Your task to perform on an android device: What's the news about the US economy? Image 0: 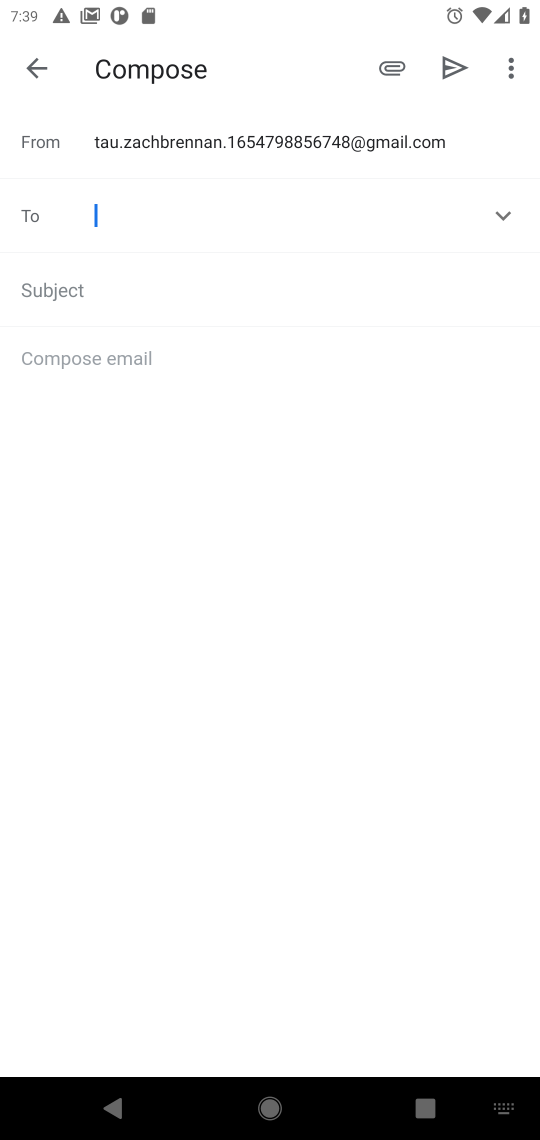
Step 0: press home button
Your task to perform on an android device: What's the news about the US economy? Image 1: 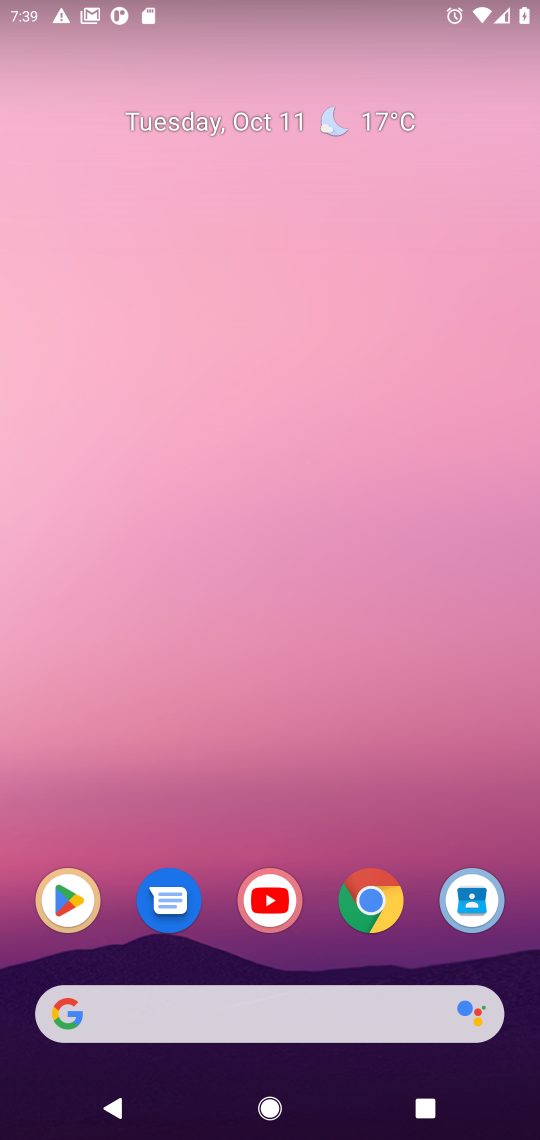
Step 1: click (375, 895)
Your task to perform on an android device: What's the news about the US economy? Image 2: 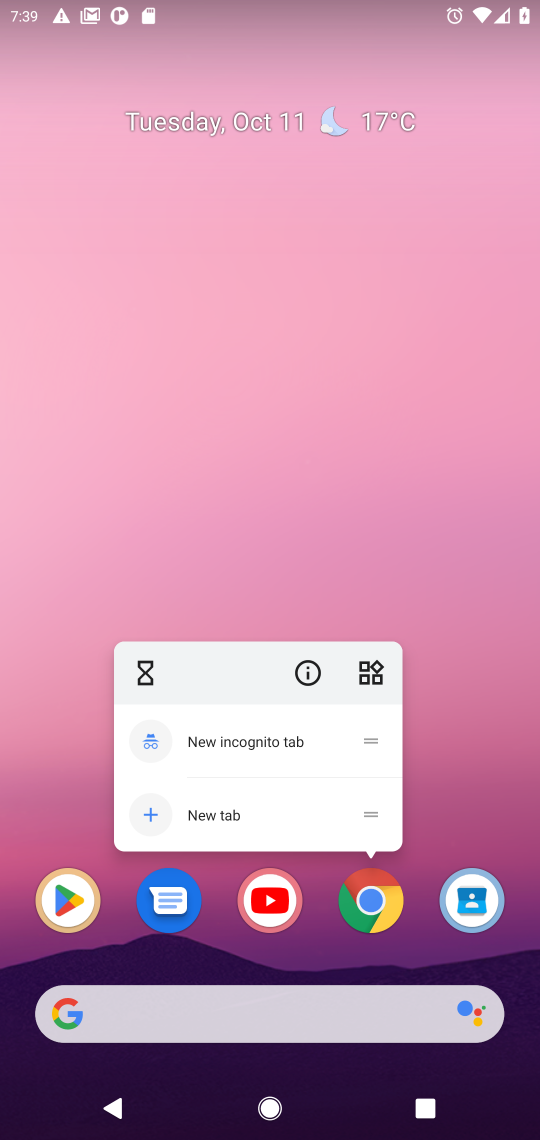
Step 2: click (376, 898)
Your task to perform on an android device: What's the news about the US economy? Image 3: 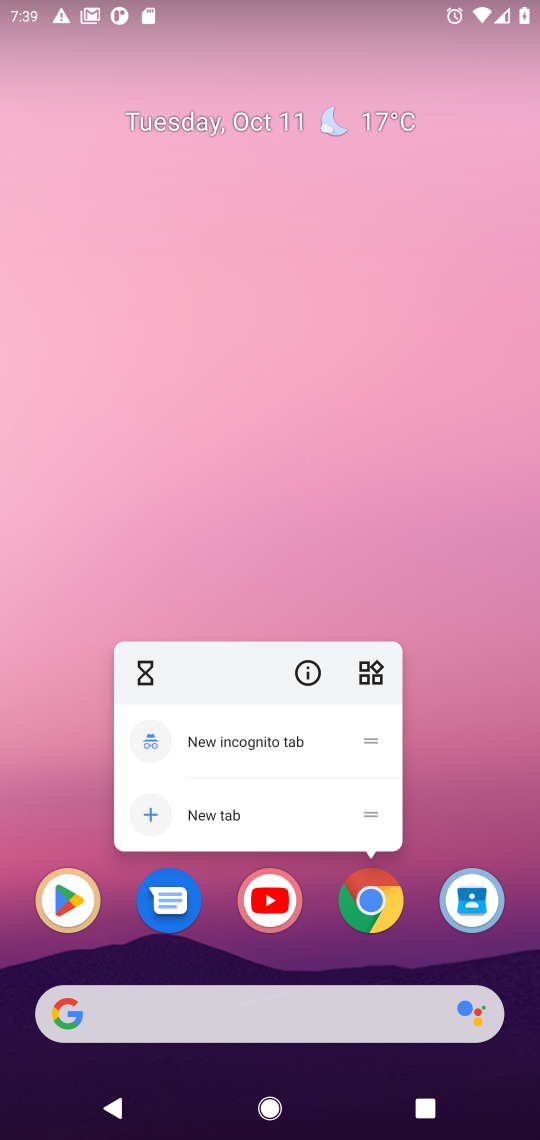
Step 3: click (366, 903)
Your task to perform on an android device: What's the news about the US economy? Image 4: 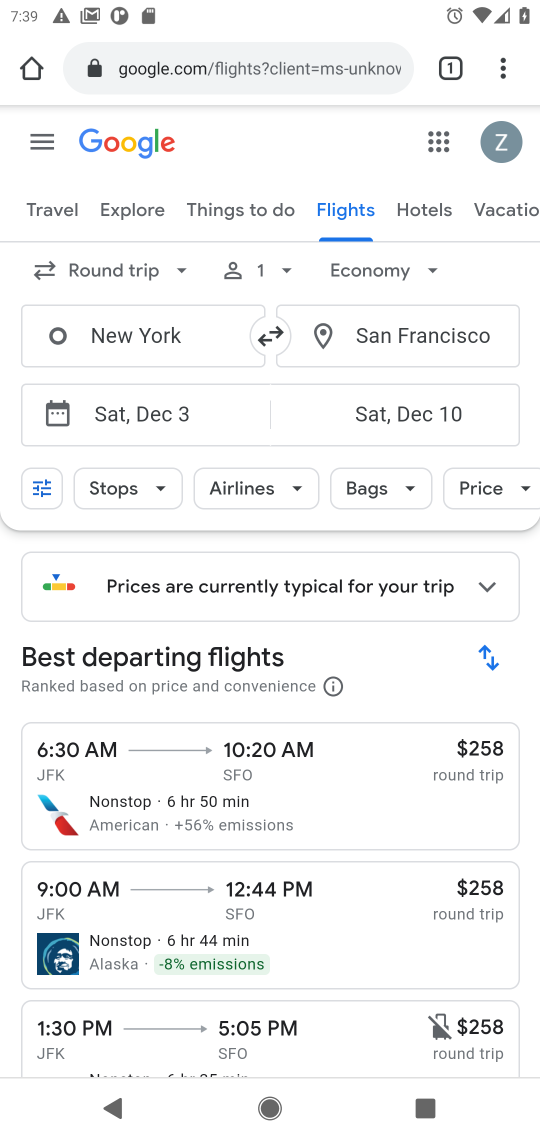
Step 4: click (276, 68)
Your task to perform on an android device: What's the news about the US economy? Image 5: 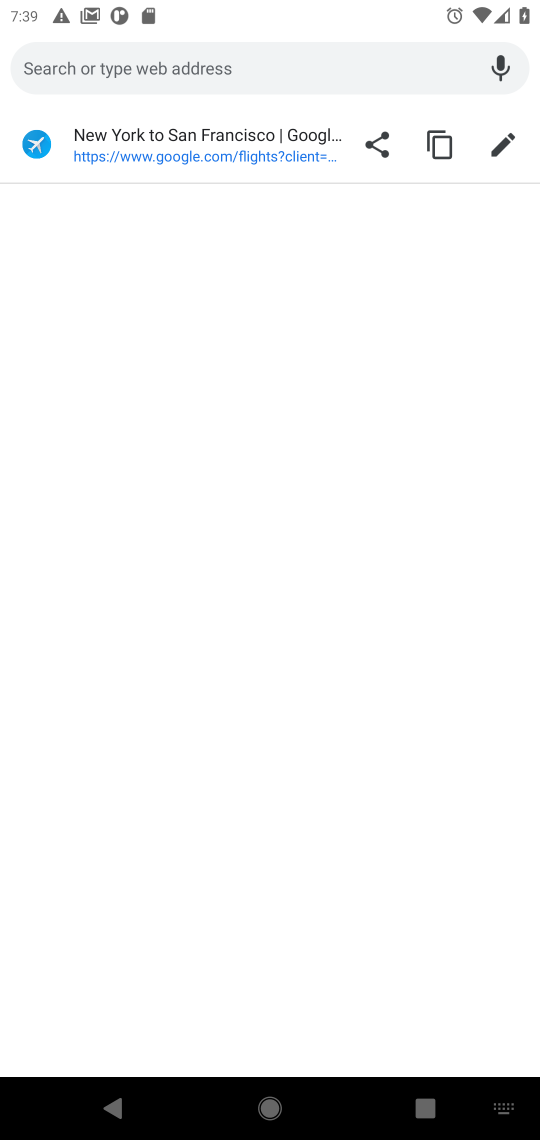
Step 5: type "news about the US economy"
Your task to perform on an android device: What's the news about the US economy? Image 6: 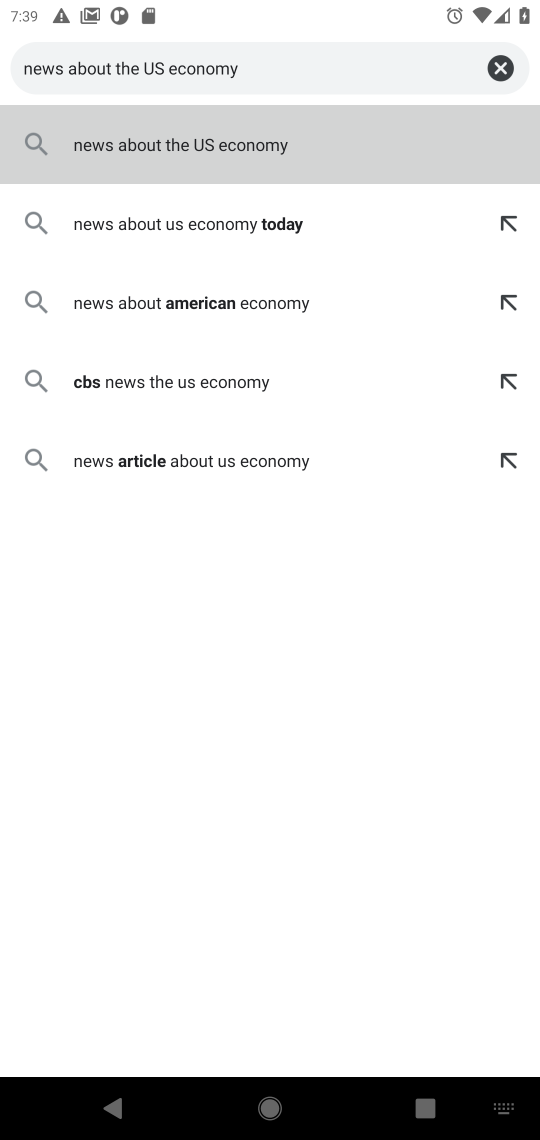
Step 6: press enter
Your task to perform on an android device: What's the news about the US economy? Image 7: 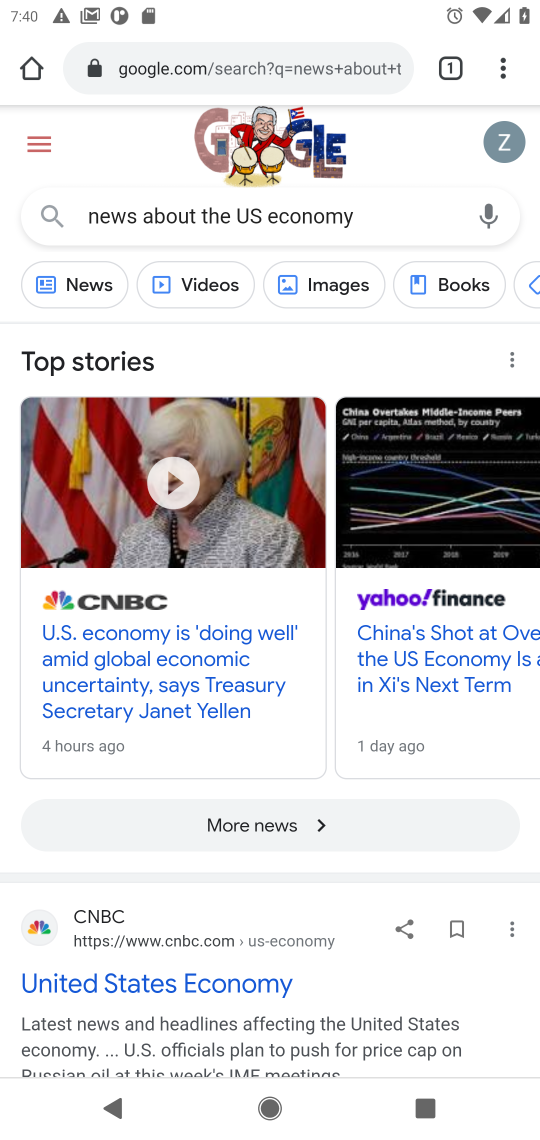
Step 7: click (104, 282)
Your task to perform on an android device: What's the news about the US economy? Image 8: 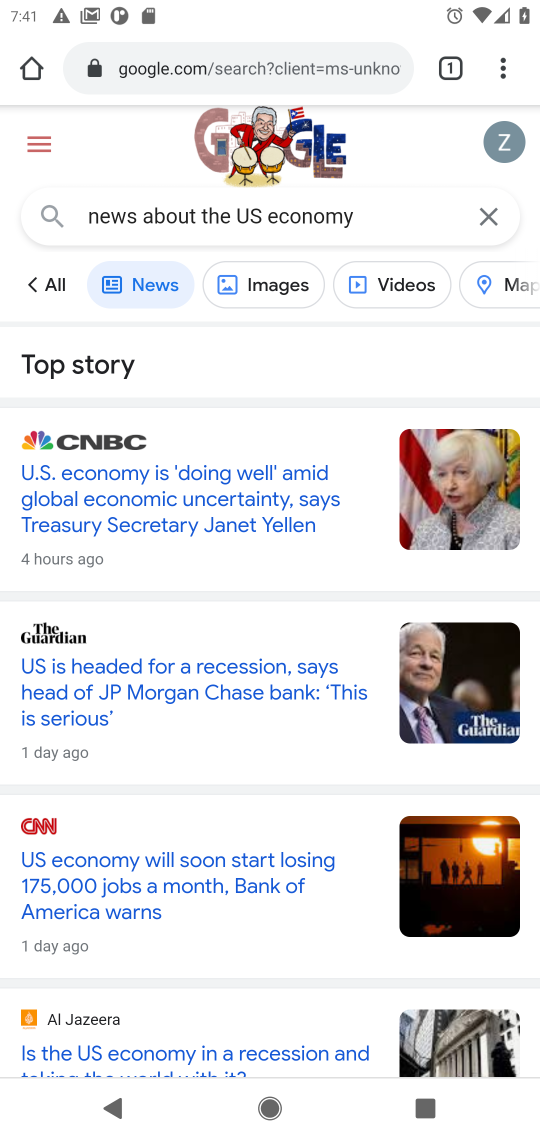
Step 8: task complete